Your task to perform on an android device: Open Youtube and go to "Your channel" Image 0: 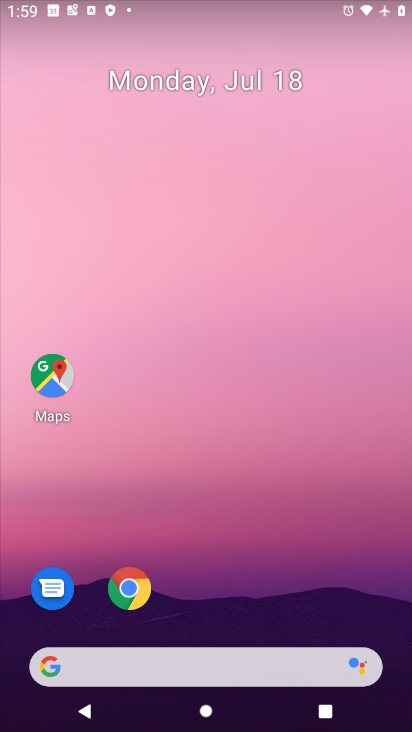
Step 0: drag from (130, 679) to (171, 343)
Your task to perform on an android device: Open Youtube and go to "Your channel" Image 1: 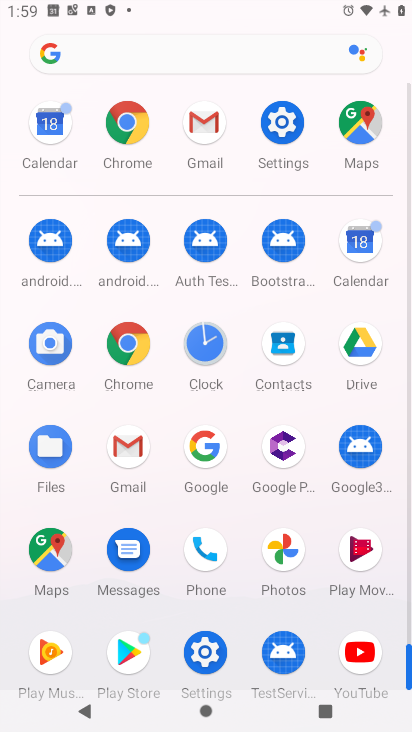
Step 1: click (374, 661)
Your task to perform on an android device: Open Youtube and go to "Your channel" Image 2: 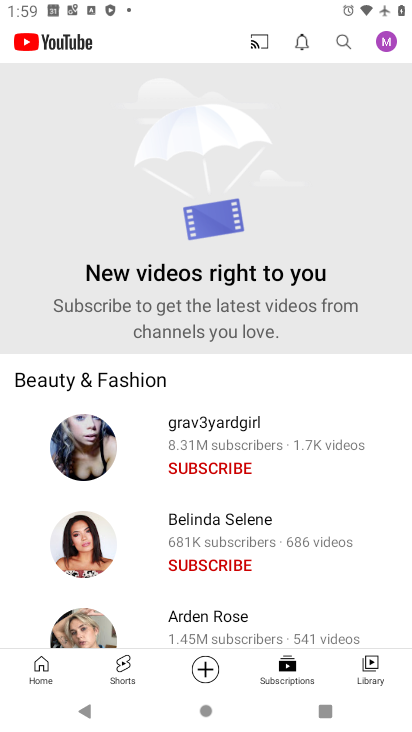
Step 2: click (383, 42)
Your task to perform on an android device: Open Youtube and go to "Your channel" Image 3: 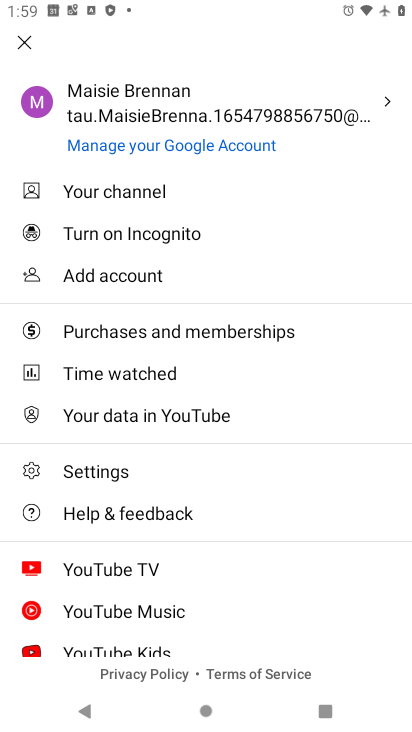
Step 3: click (105, 190)
Your task to perform on an android device: Open Youtube and go to "Your channel" Image 4: 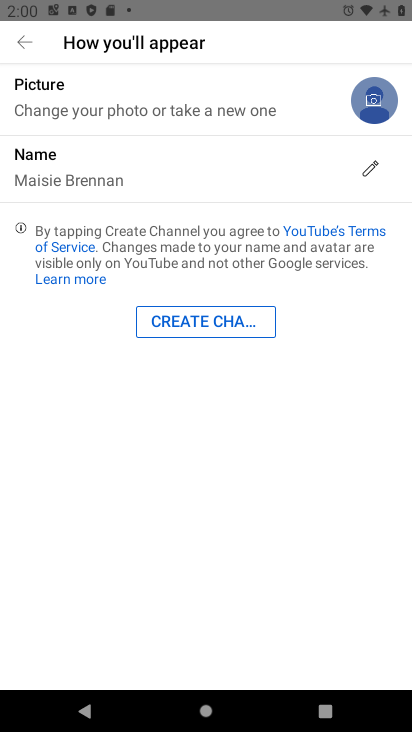
Step 4: task complete